Your task to perform on an android device: Go to Amazon Image 0: 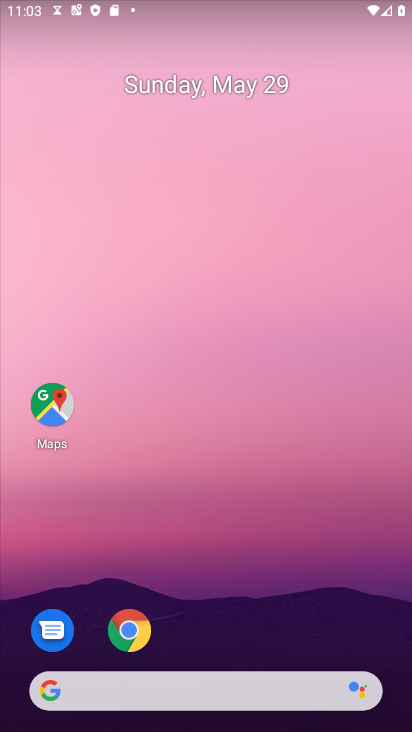
Step 0: click (127, 628)
Your task to perform on an android device: Go to Amazon Image 1: 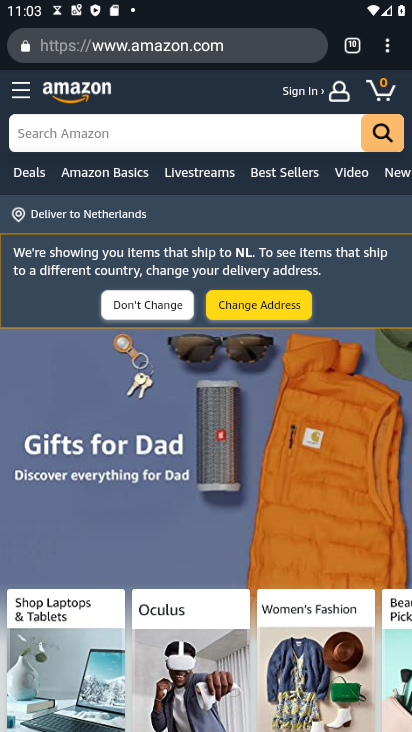
Step 1: task complete